Your task to perform on an android device: Show me recent news Image 0: 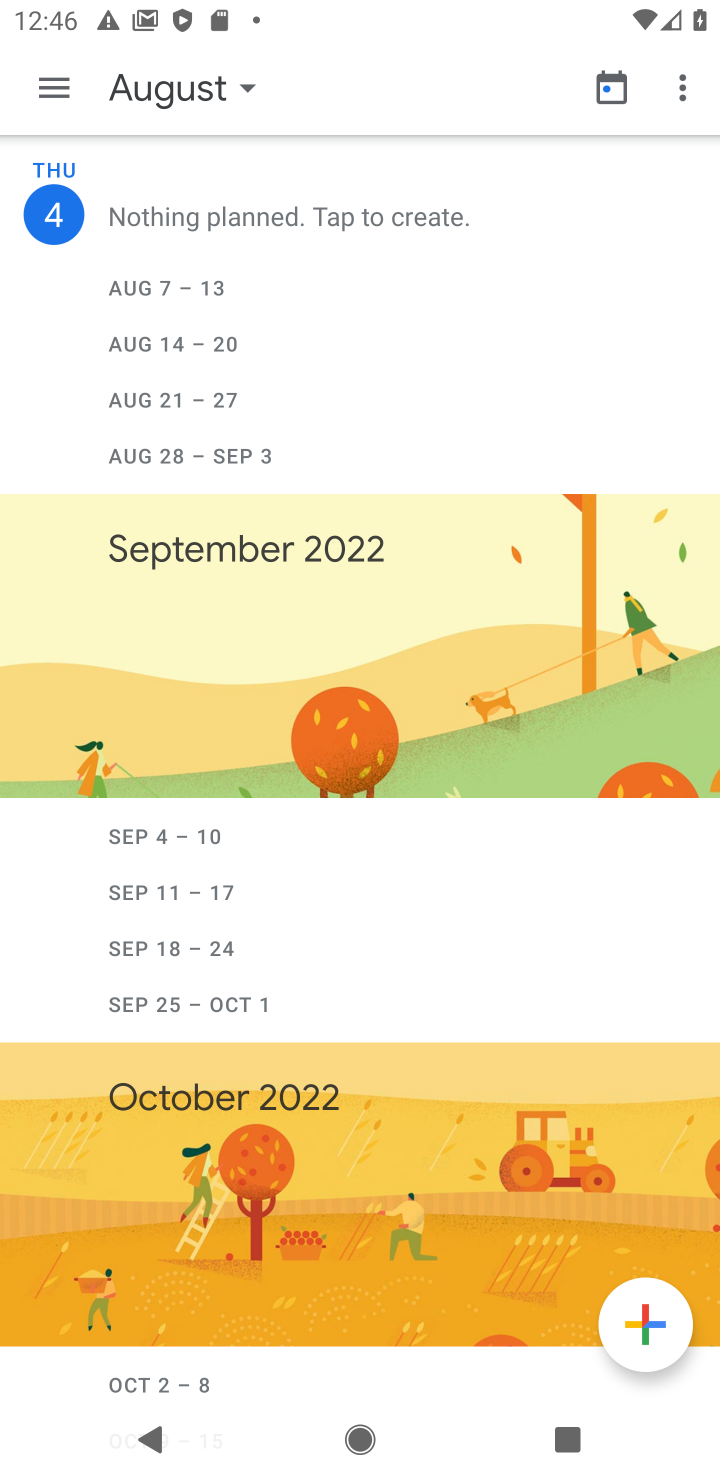
Step 0: press home button
Your task to perform on an android device: Show me recent news Image 1: 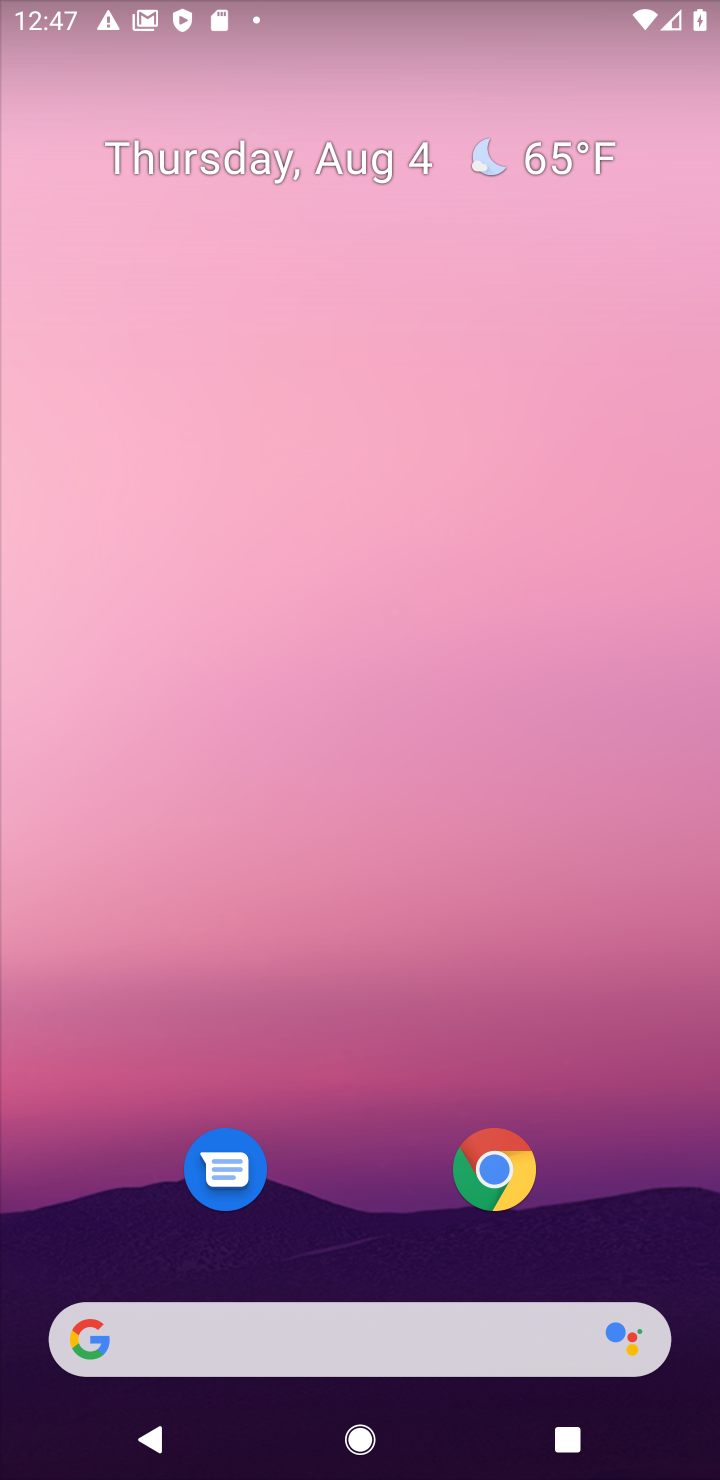
Step 1: click (332, 1338)
Your task to perform on an android device: Show me recent news Image 2: 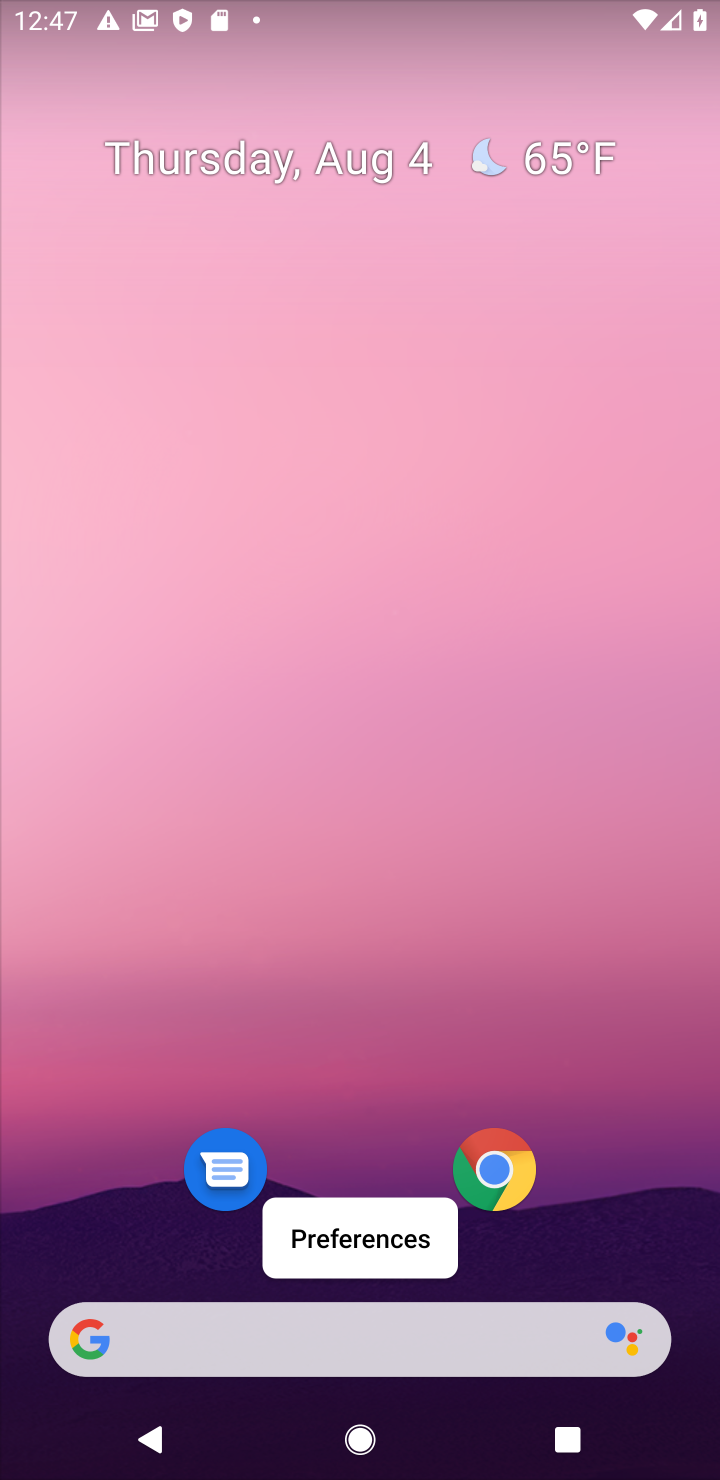
Step 2: click (351, 1317)
Your task to perform on an android device: Show me recent news Image 3: 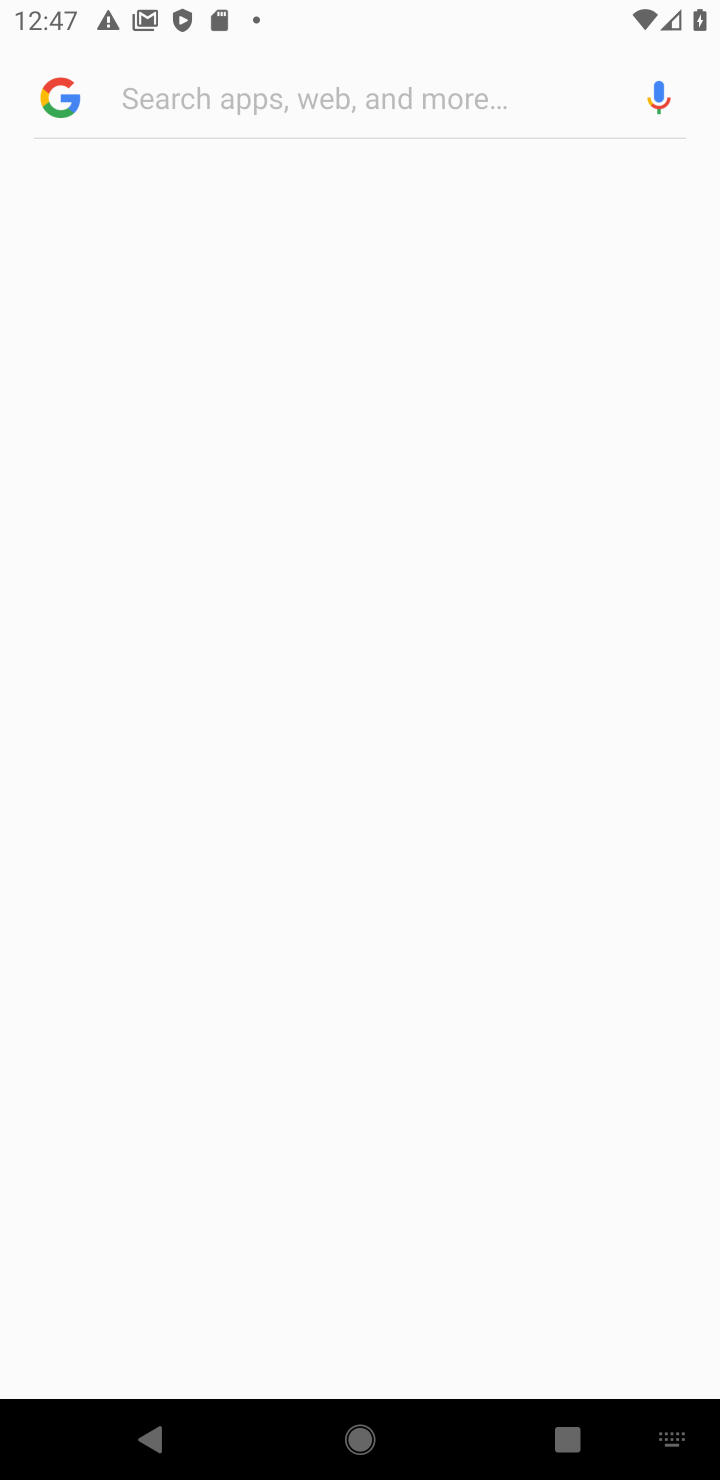
Step 3: type "recent news"
Your task to perform on an android device: Show me recent news Image 4: 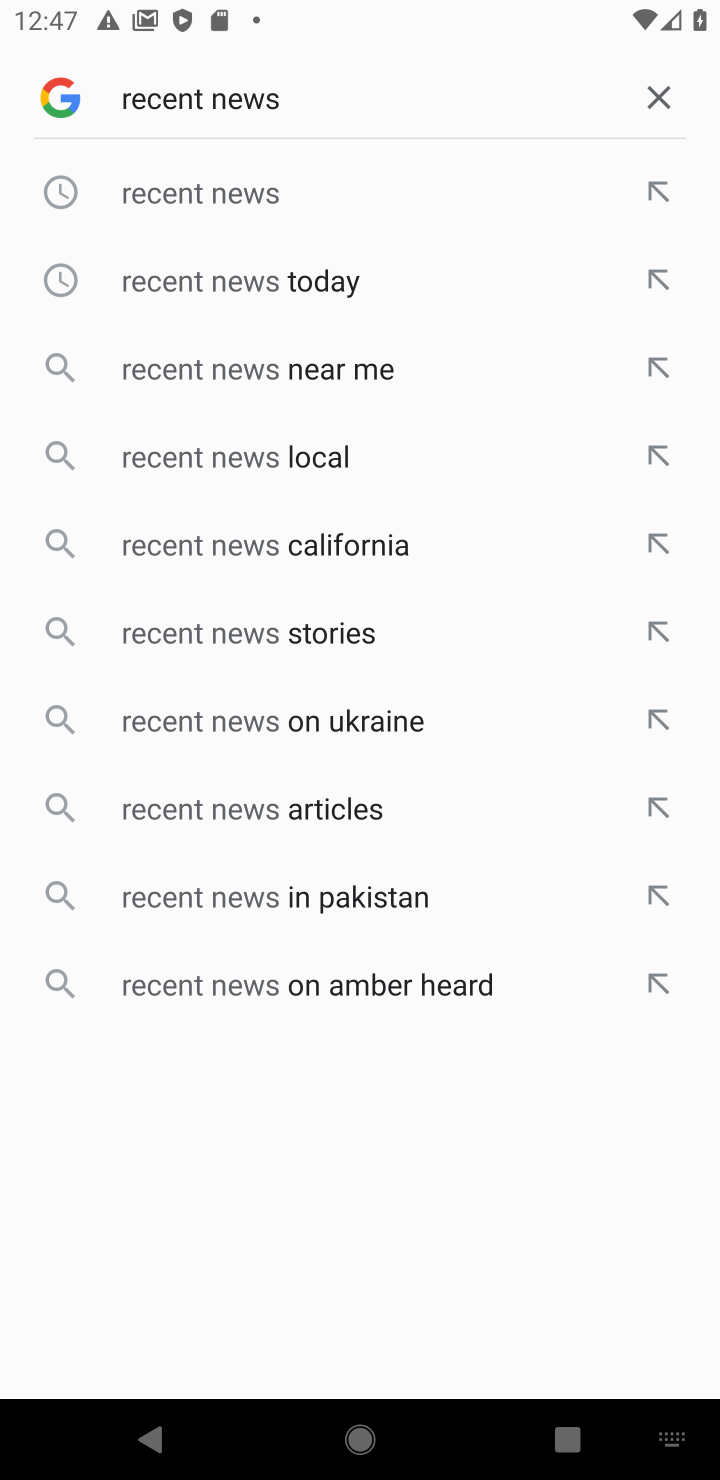
Step 4: click (256, 212)
Your task to perform on an android device: Show me recent news Image 5: 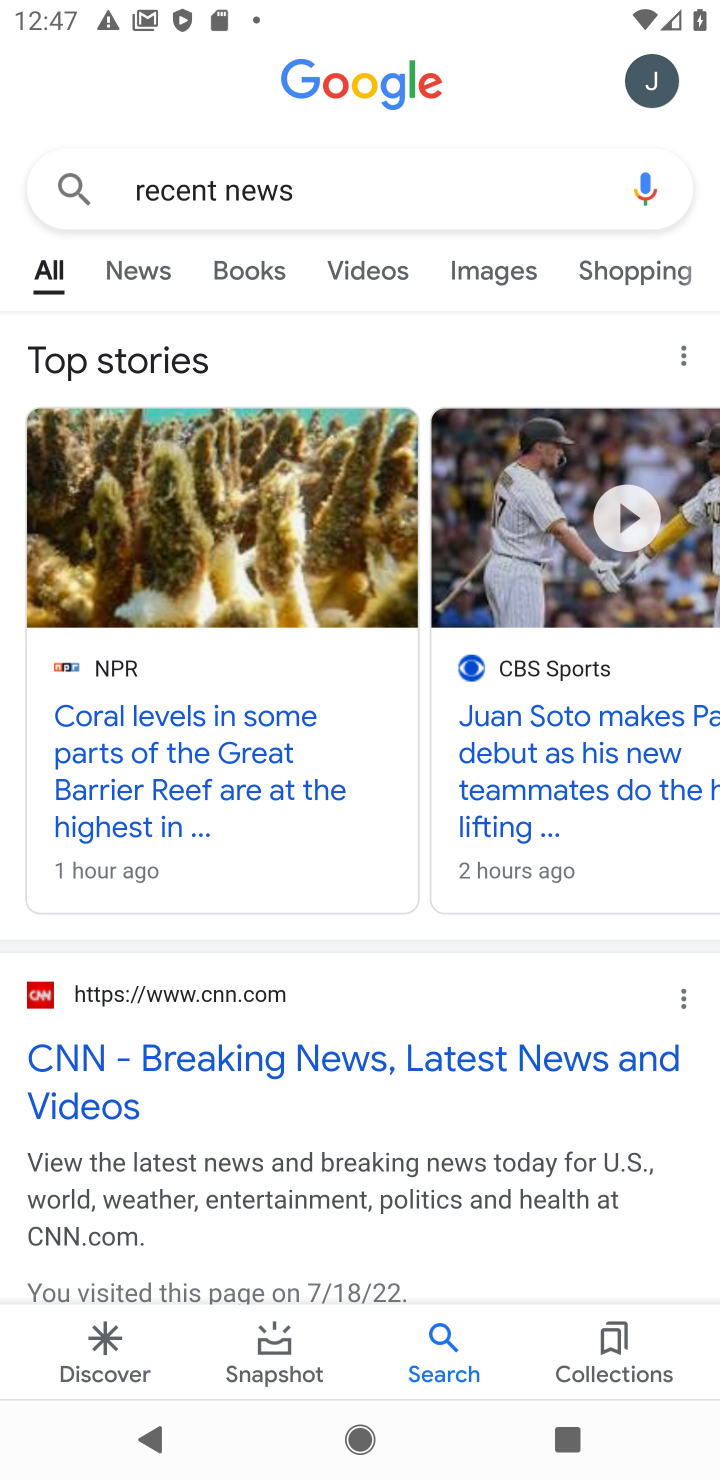
Step 5: task complete